Your task to perform on an android device: Go to network settings Image 0: 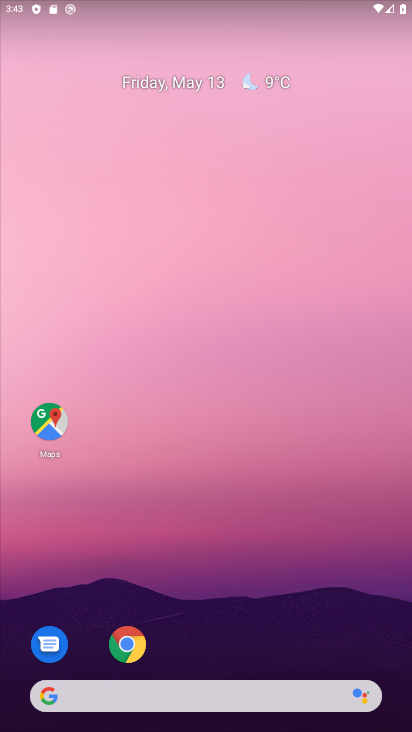
Step 0: drag from (220, 577) to (218, 104)
Your task to perform on an android device: Go to network settings Image 1: 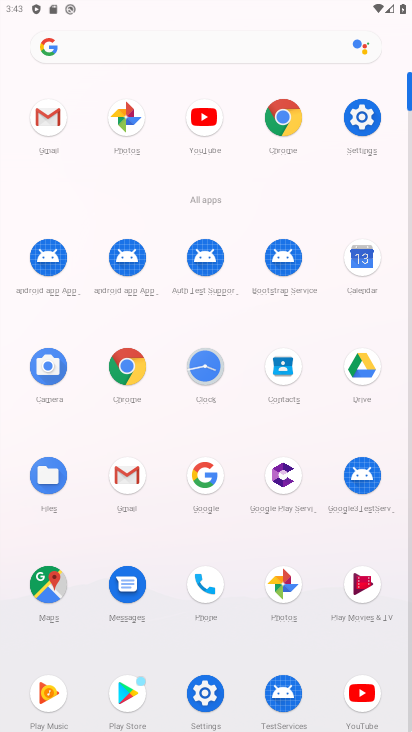
Step 1: click (368, 127)
Your task to perform on an android device: Go to network settings Image 2: 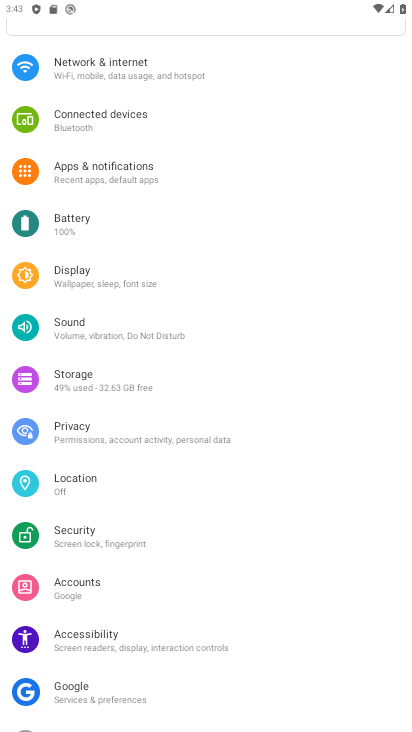
Step 2: click (195, 80)
Your task to perform on an android device: Go to network settings Image 3: 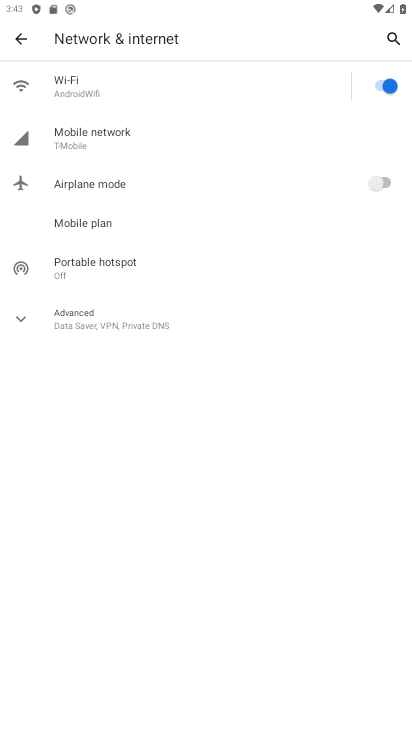
Step 3: task complete